Your task to perform on an android device: Go to Amazon Image 0: 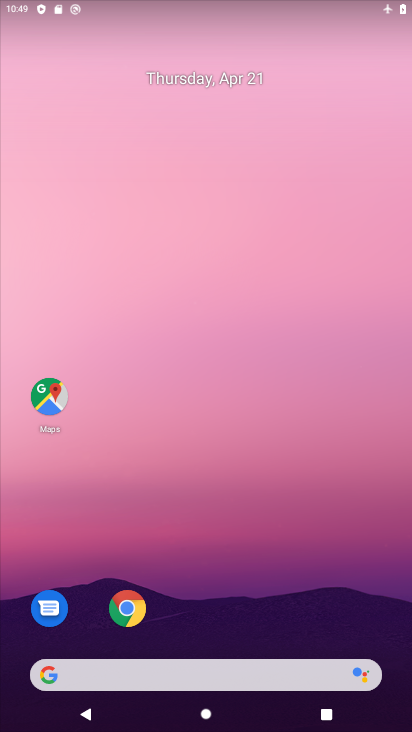
Step 0: click (132, 616)
Your task to perform on an android device: Go to Amazon Image 1: 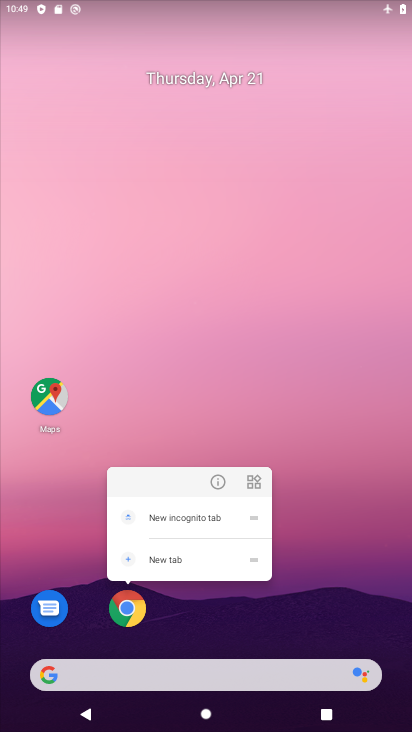
Step 1: click (209, 482)
Your task to perform on an android device: Go to Amazon Image 2: 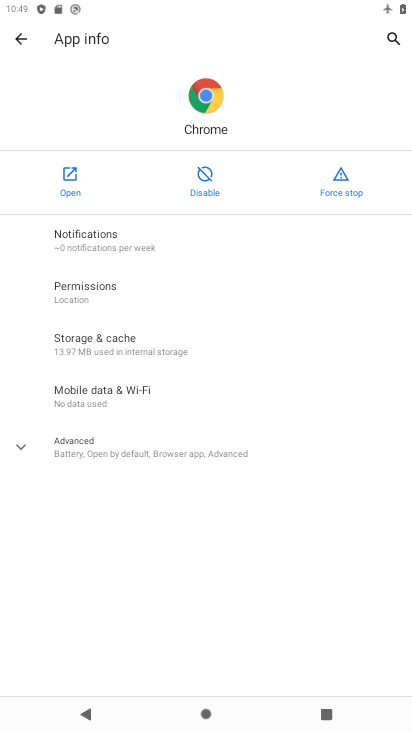
Step 2: click (81, 196)
Your task to perform on an android device: Go to Amazon Image 3: 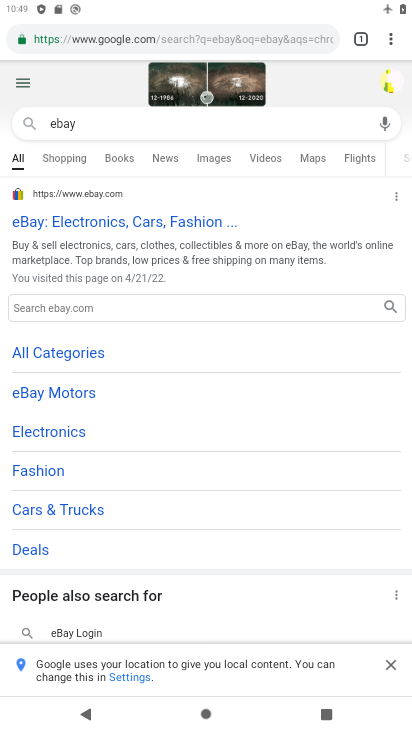
Step 3: click (322, 123)
Your task to perform on an android device: Go to Amazon Image 4: 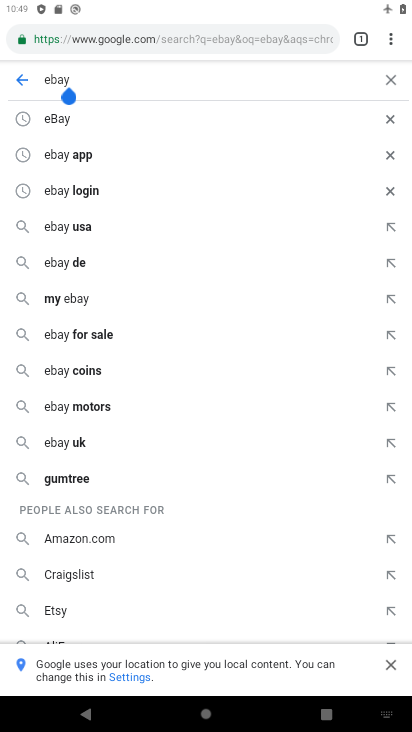
Step 4: click (400, 82)
Your task to perform on an android device: Go to Amazon Image 5: 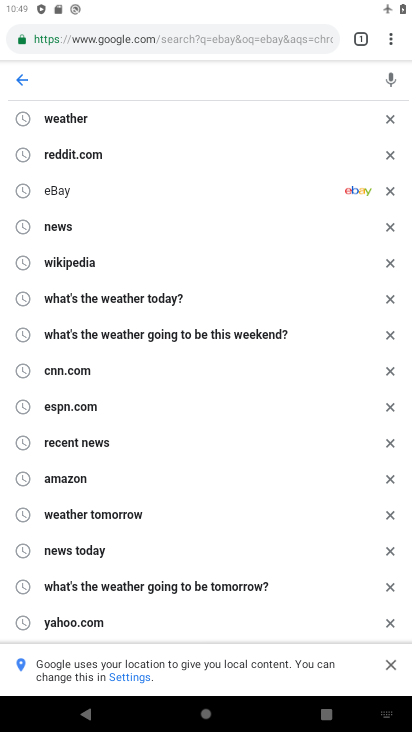
Step 5: type "amazon"
Your task to perform on an android device: Go to Amazon Image 6: 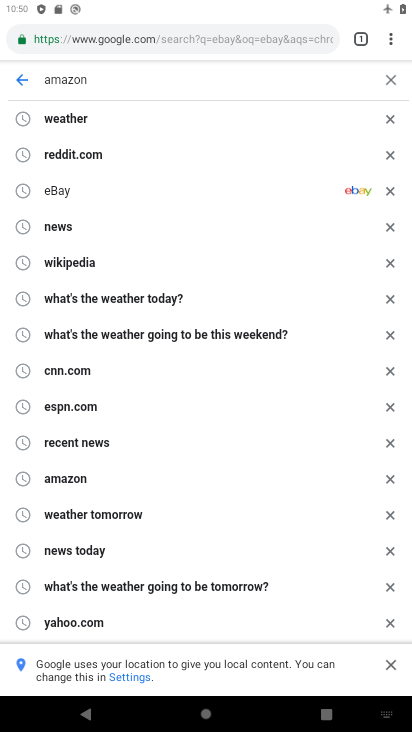
Step 6: click (164, 83)
Your task to perform on an android device: Go to Amazon Image 7: 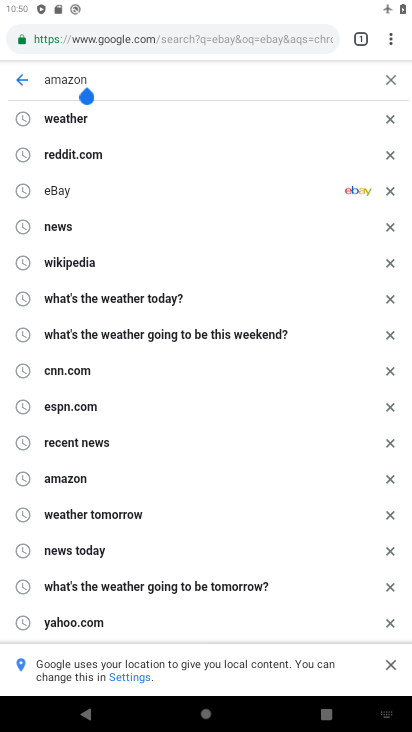
Step 7: click (67, 478)
Your task to perform on an android device: Go to Amazon Image 8: 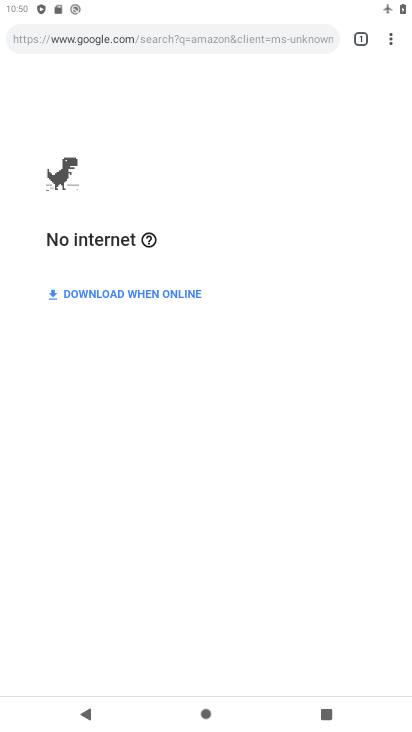
Step 8: task complete